Your task to perform on an android device: Add usb-b to the cart on costco.com Image 0: 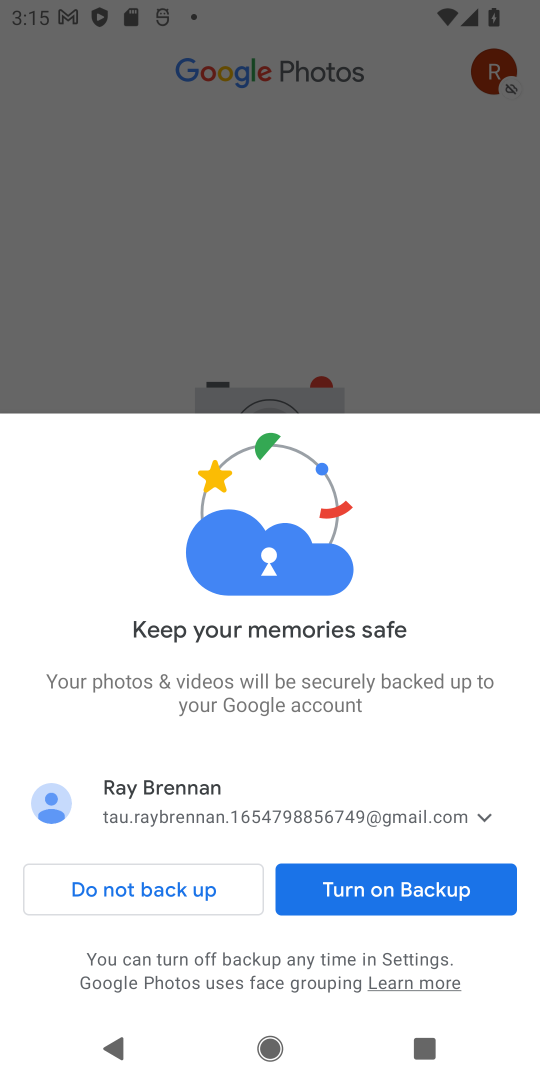
Step 0: press home button
Your task to perform on an android device: Add usb-b to the cart on costco.com Image 1: 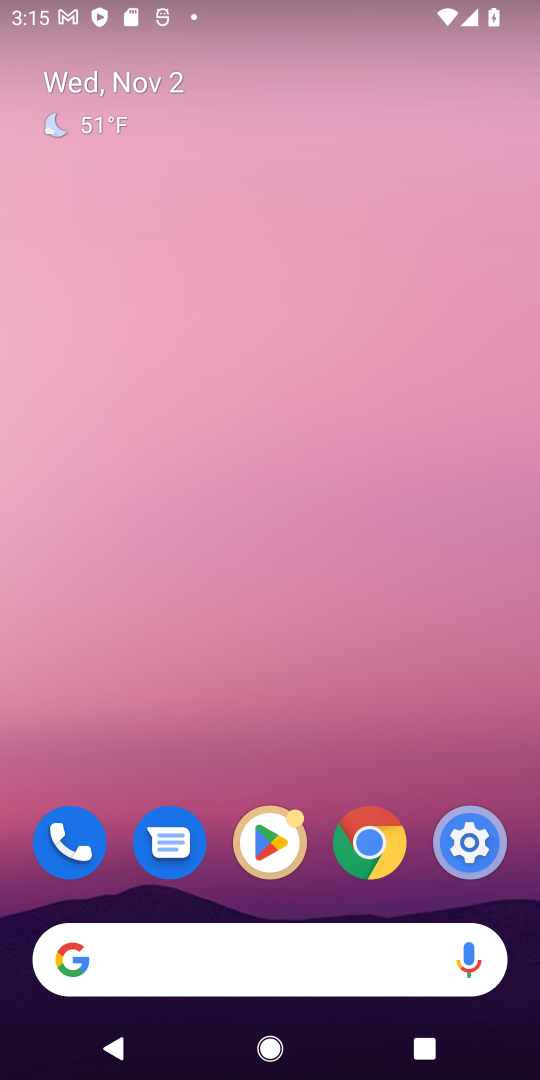
Step 1: click (221, 953)
Your task to perform on an android device: Add usb-b to the cart on costco.com Image 2: 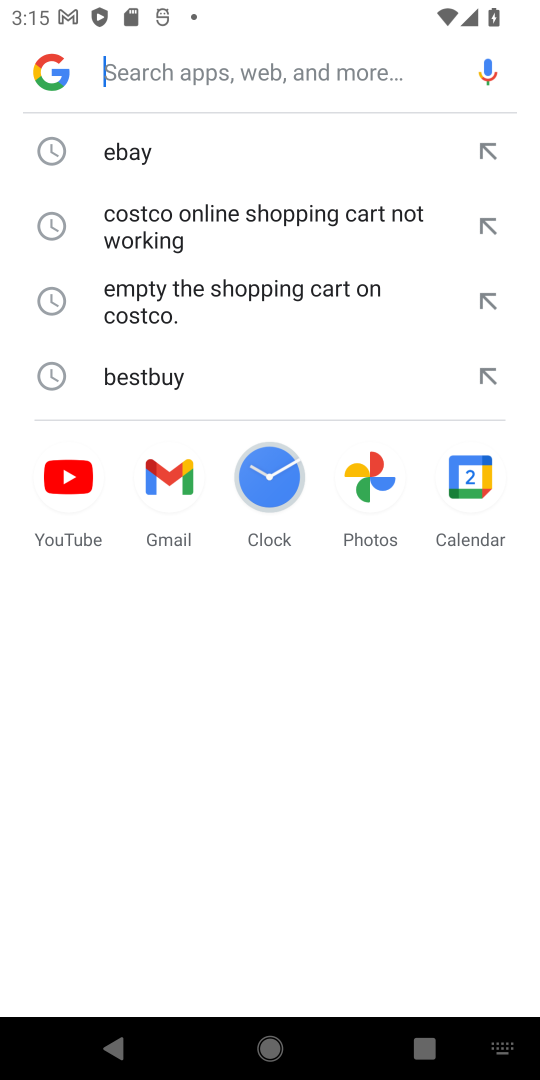
Step 2: type "costco.com"
Your task to perform on an android device: Add usb-b to the cart on costco.com Image 3: 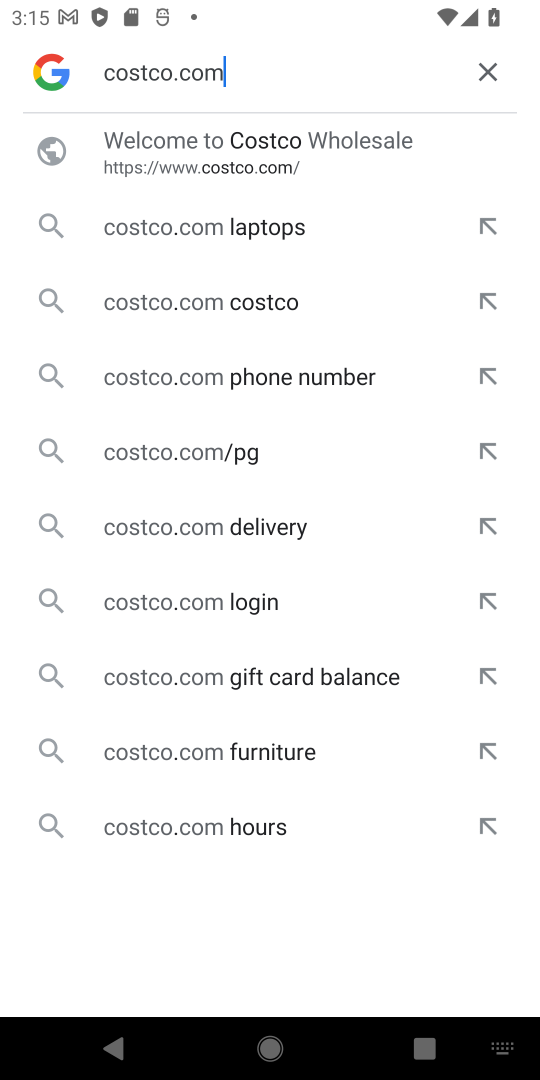
Step 3: click (202, 305)
Your task to perform on an android device: Add usb-b to the cart on costco.com Image 4: 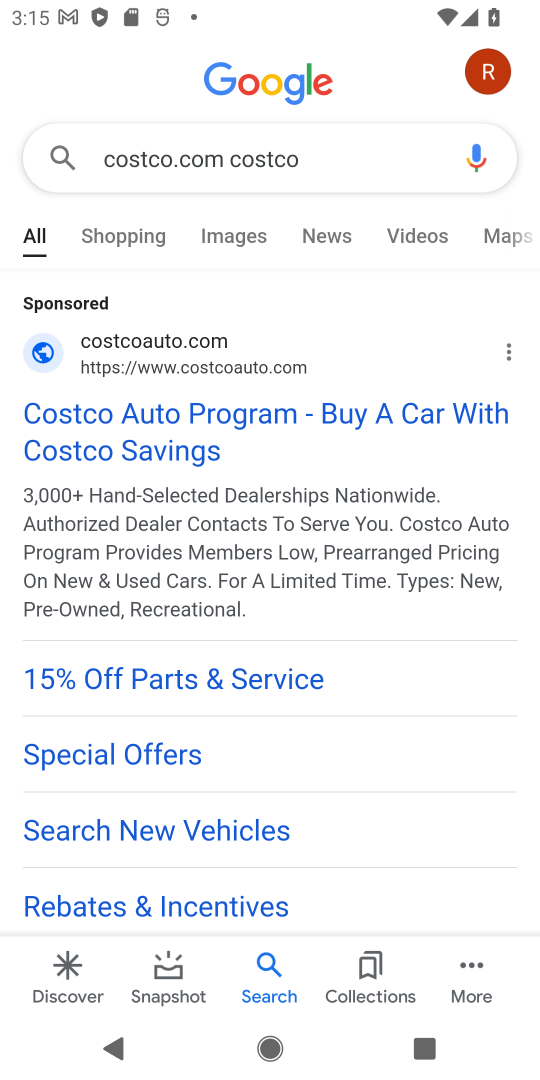
Step 4: drag from (405, 795) to (379, 571)
Your task to perform on an android device: Add usb-b to the cart on costco.com Image 5: 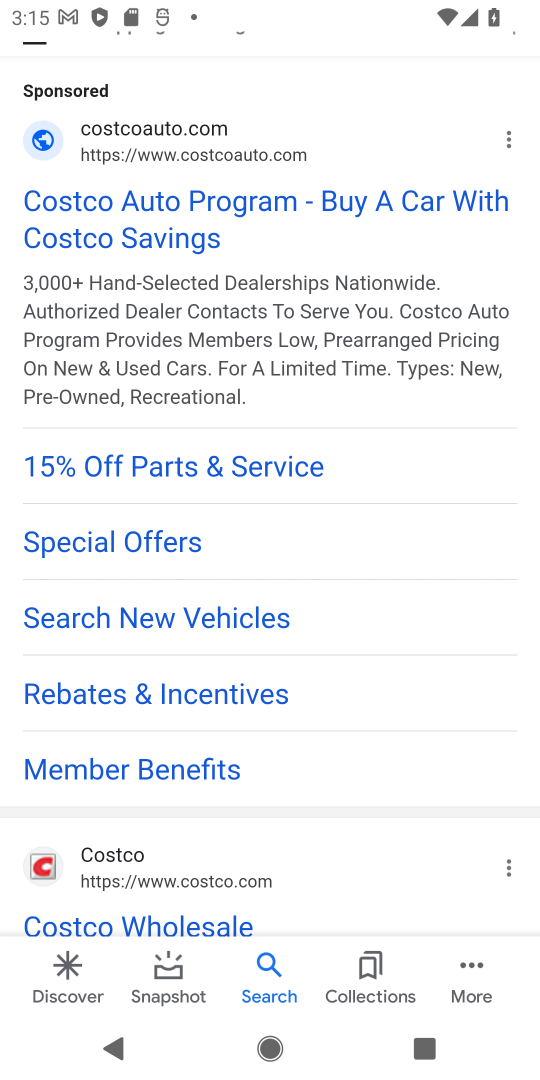
Step 5: drag from (378, 742) to (347, 544)
Your task to perform on an android device: Add usb-b to the cart on costco.com Image 6: 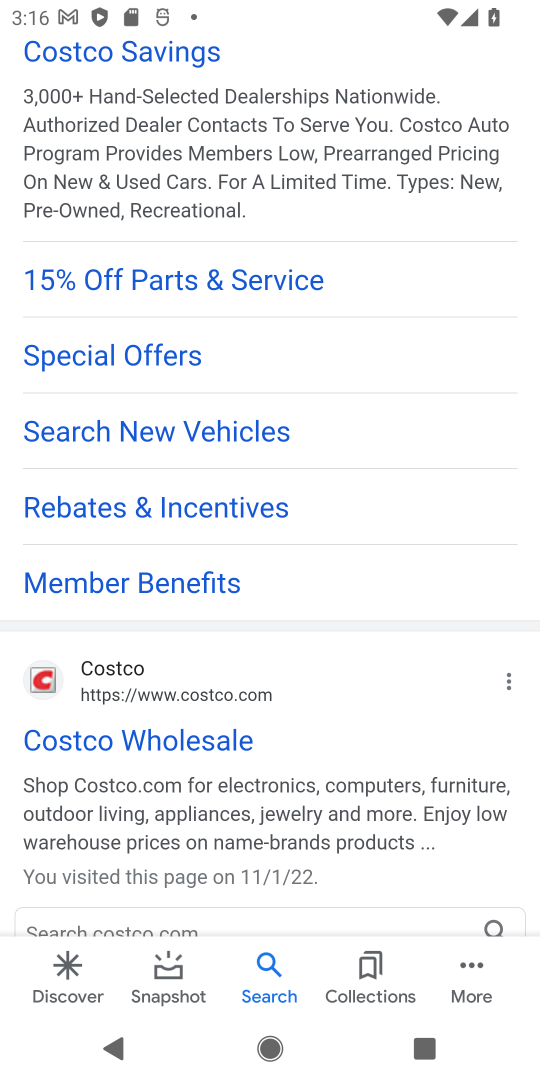
Step 6: drag from (376, 670) to (355, 474)
Your task to perform on an android device: Add usb-b to the cart on costco.com Image 7: 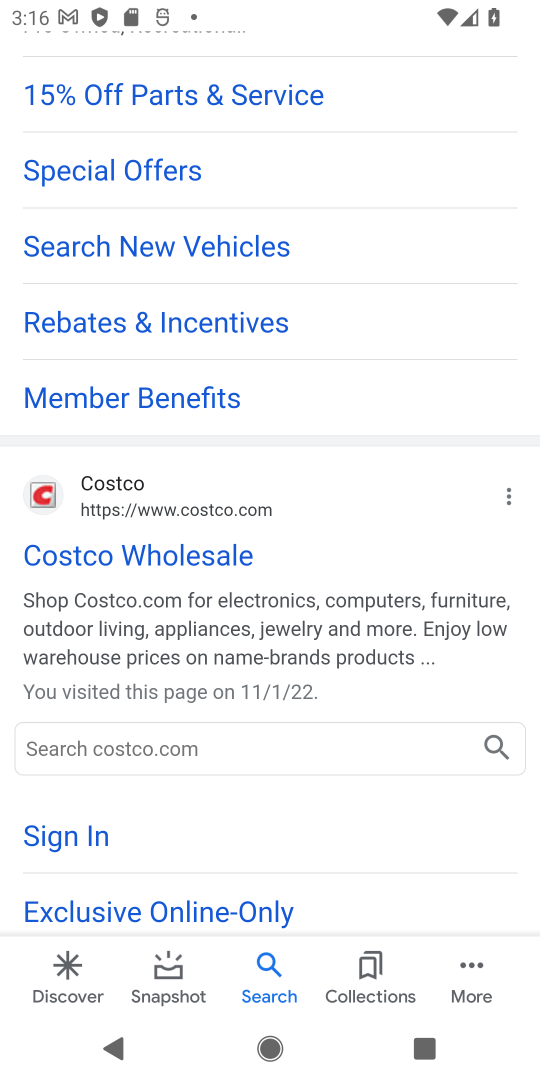
Step 7: click (84, 484)
Your task to perform on an android device: Add usb-b to the cart on costco.com Image 8: 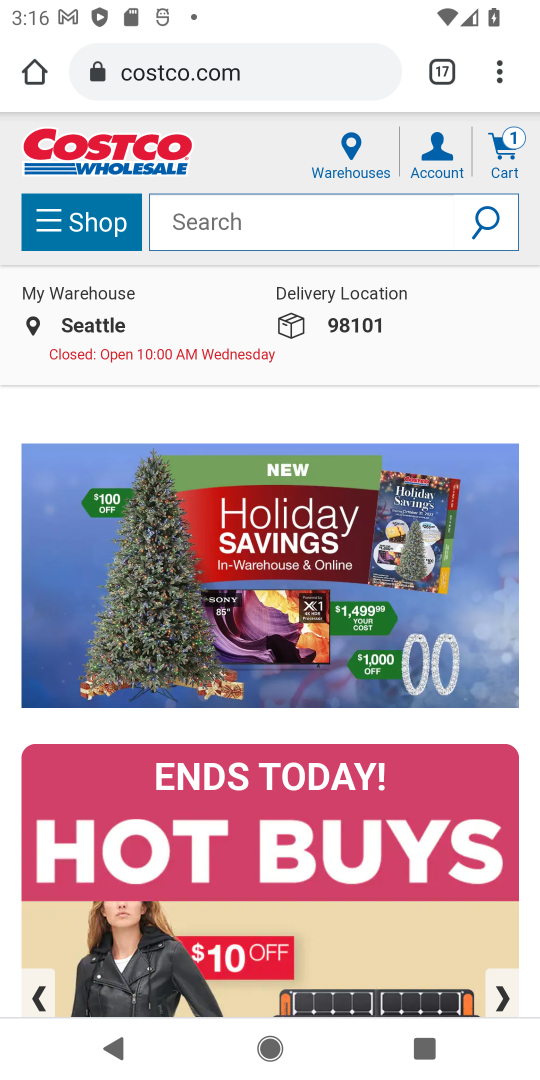
Step 8: click (230, 225)
Your task to perform on an android device: Add usb-b to the cart on costco.com Image 9: 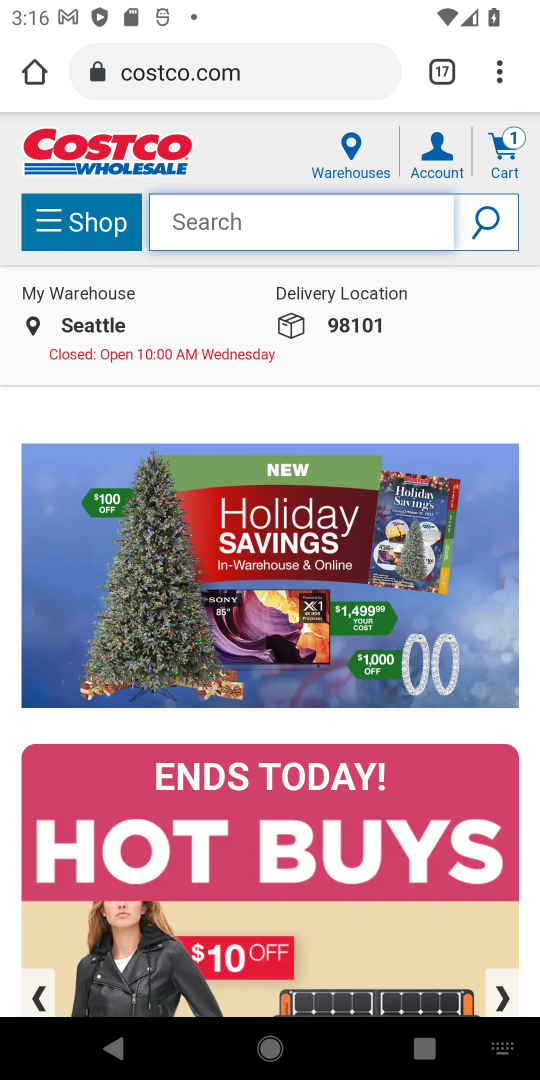
Step 9: type "usb-b"
Your task to perform on an android device: Add usb-b to the cart on costco.com Image 10: 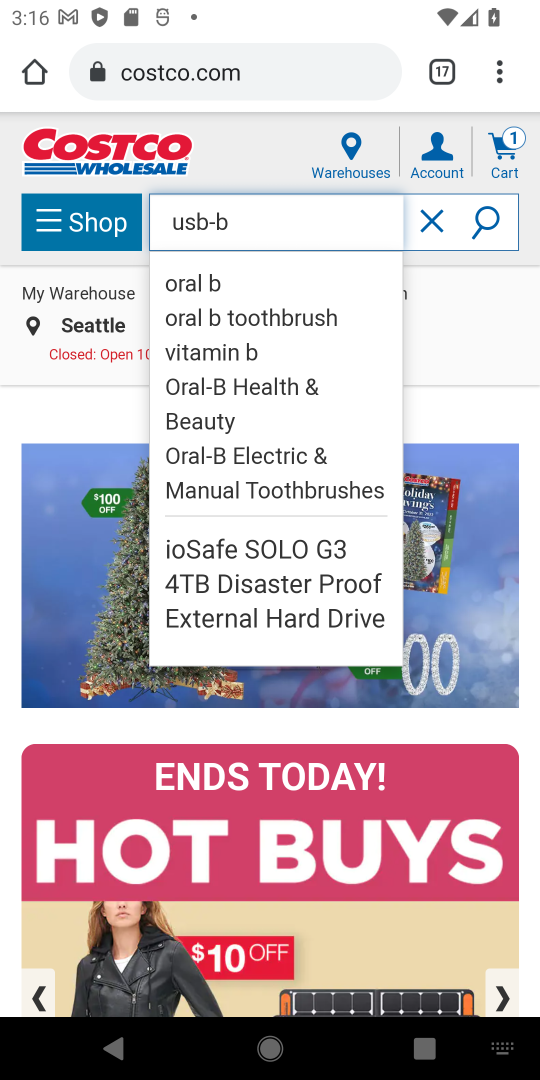
Step 10: click (485, 227)
Your task to perform on an android device: Add usb-b to the cart on costco.com Image 11: 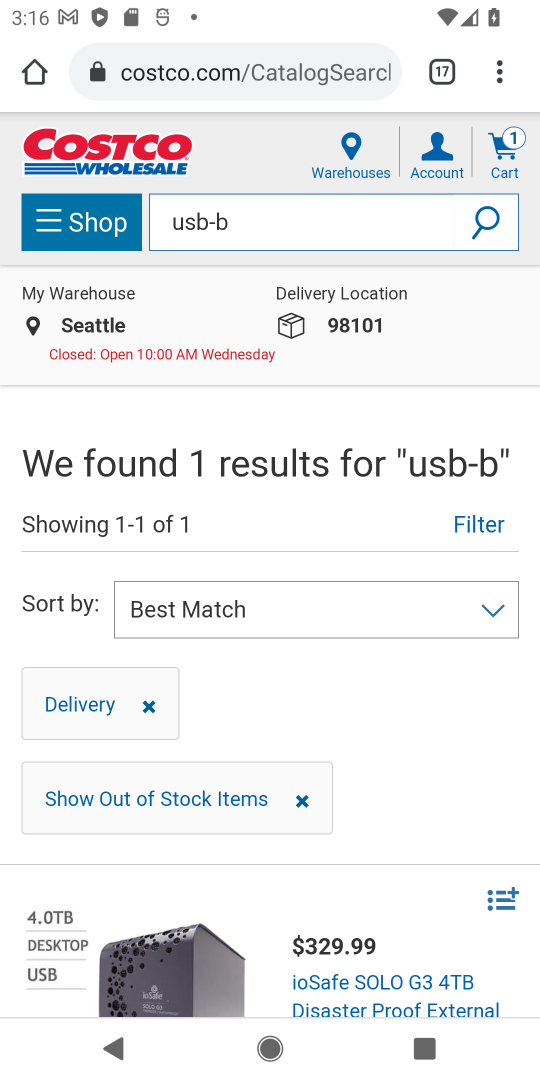
Step 11: drag from (433, 735) to (413, 492)
Your task to perform on an android device: Add usb-b to the cart on costco.com Image 12: 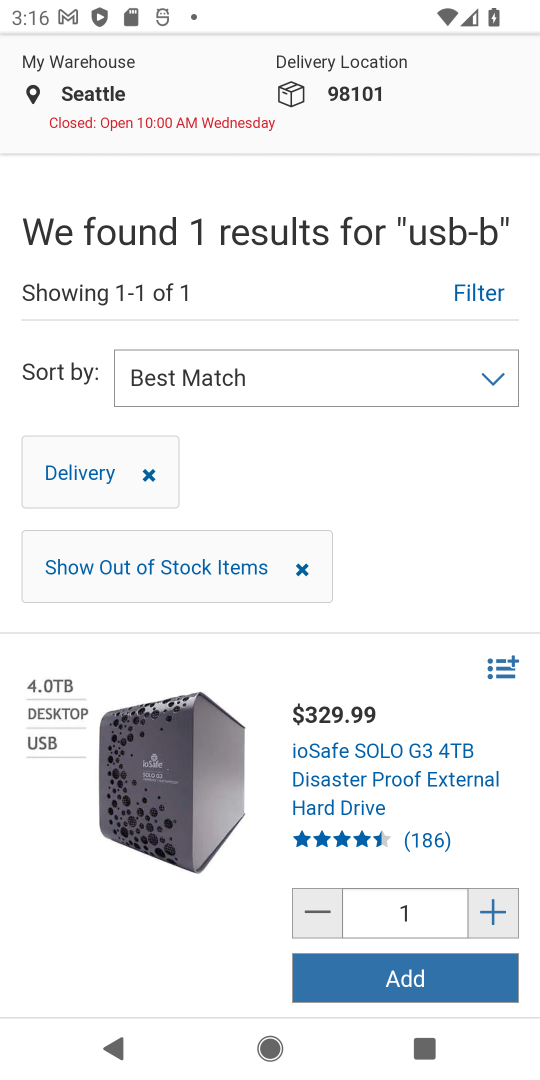
Step 12: drag from (422, 561) to (404, 385)
Your task to perform on an android device: Add usb-b to the cart on costco.com Image 13: 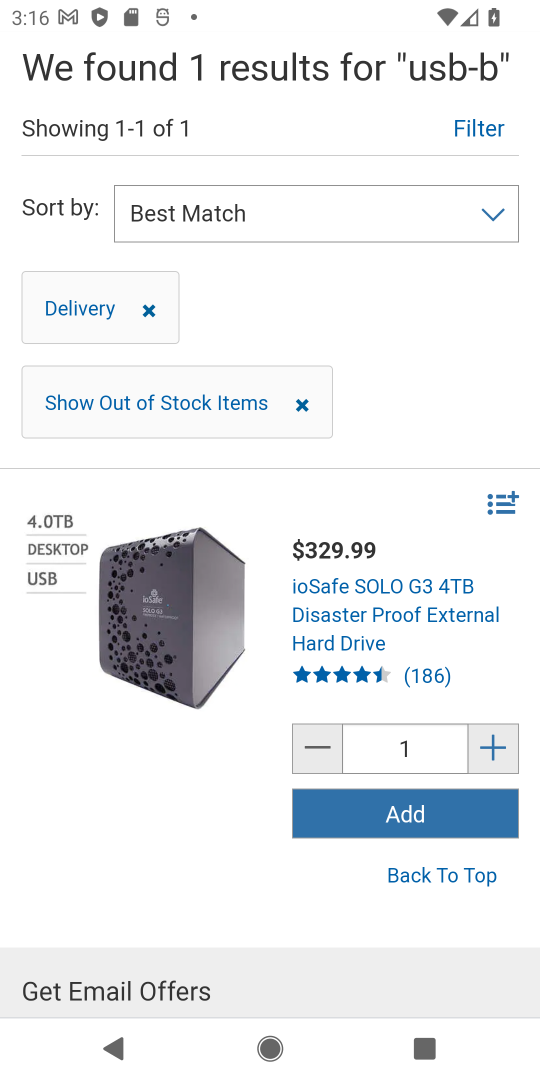
Step 13: click (402, 817)
Your task to perform on an android device: Add usb-b to the cart on costco.com Image 14: 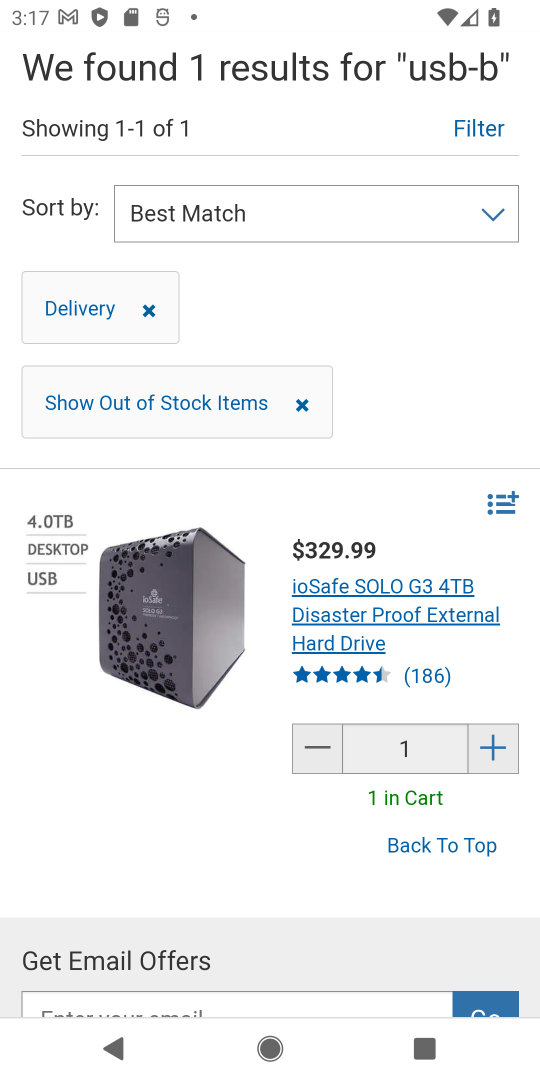
Step 14: task complete